Your task to perform on an android device: turn vacation reply on in the gmail app Image 0: 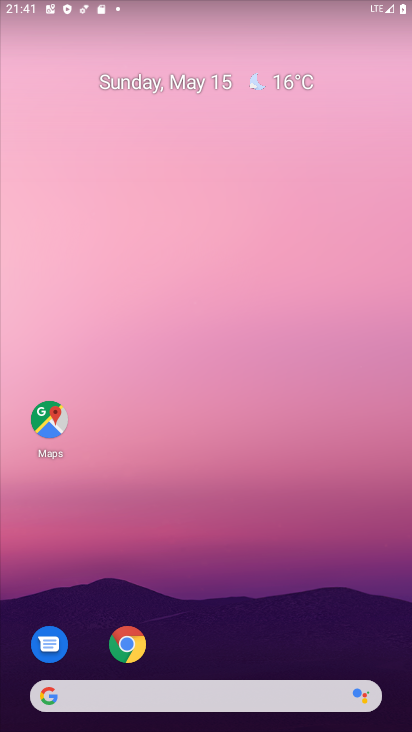
Step 0: drag from (257, 475) to (265, 187)
Your task to perform on an android device: turn vacation reply on in the gmail app Image 1: 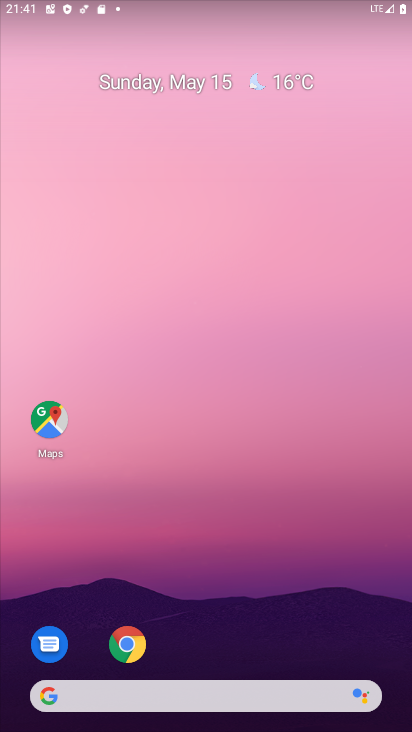
Step 1: drag from (162, 632) to (228, 240)
Your task to perform on an android device: turn vacation reply on in the gmail app Image 2: 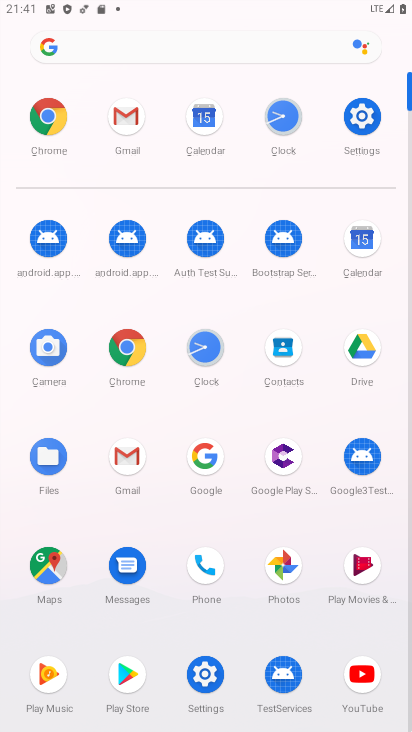
Step 2: click (119, 104)
Your task to perform on an android device: turn vacation reply on in the gmail app Image 3: 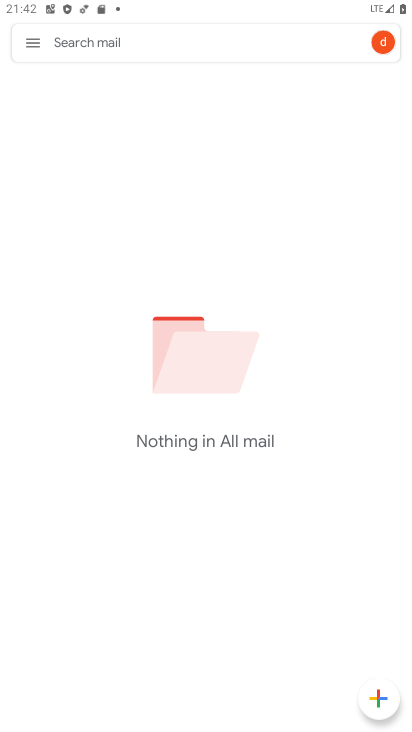
Step 3: click (27, 39)
Your task to perform on an android device: turn vacation reply on in the gmail app Image 4: 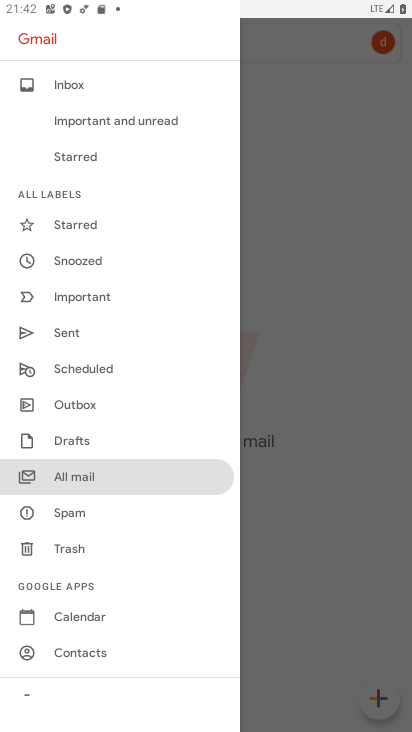
Step 4: drag from (79, 615) to (171, 103)
Your task to perform on an android device: turn vacation reply on in the gmail app Image 5: 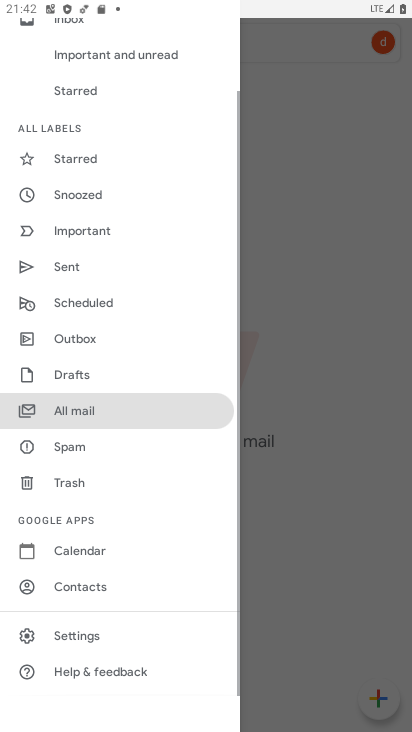
Step 5: click (82, 630)
Your task to perform on an android device: turn vacation reply on in the gmail app Image 6: 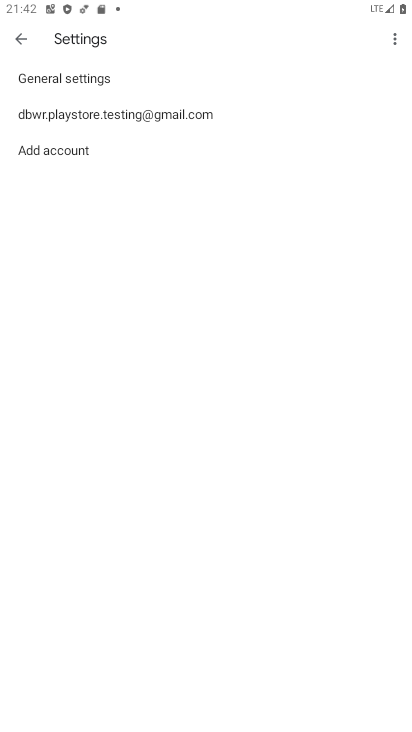
Step 6: click (132, 113)
Your task to perform on an android device: turn vacation reply on in the gmail app Image 7: 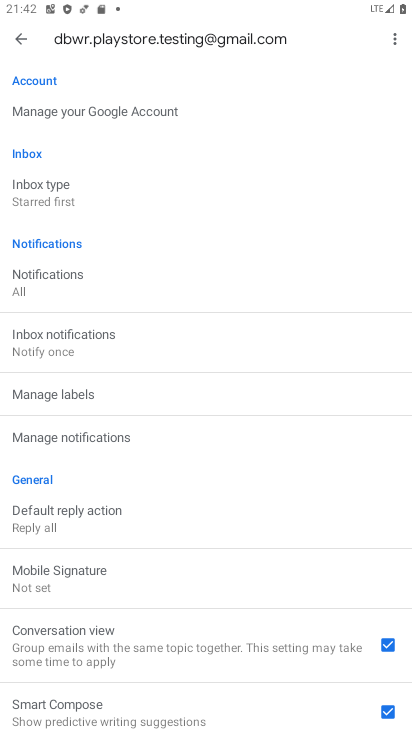
Step 7: drag from (113, 683) to (212, 182)
Your task to perform on an android device: turn vacation reply on in the gmail app Image 8: 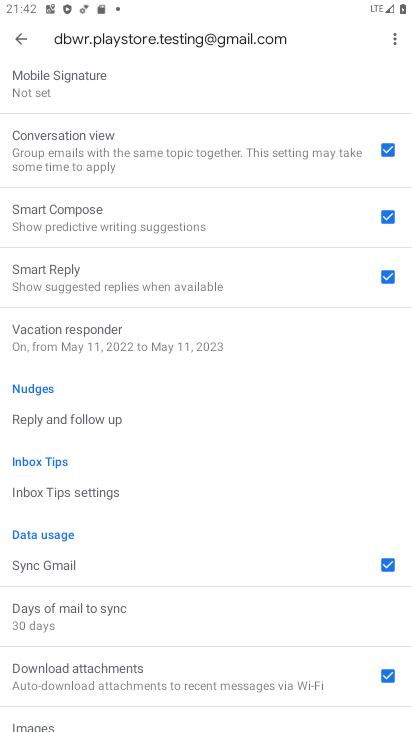
Step 8: drag from (202, 655) to (249, 325)
Your task to perform on an android device: turn vacation reply on in the gmail app Image 9: 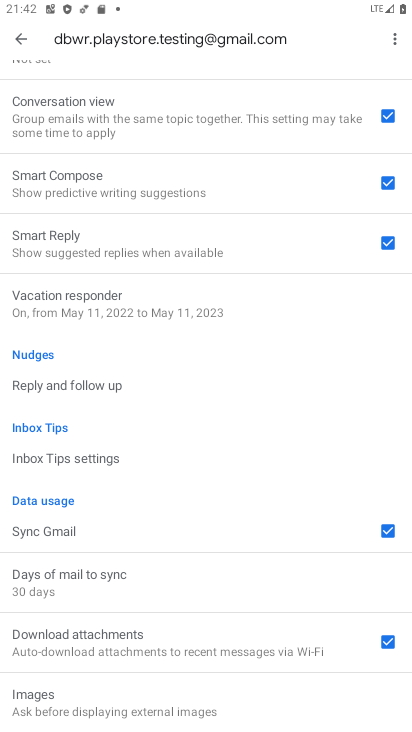
Step 9: click (178, 287)
Your task to perform on an android device: turn vacation reply on in the gmail app Image 10: 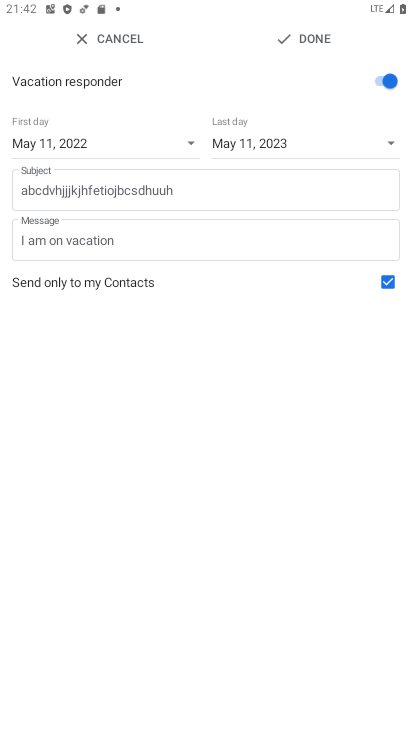
Step 10: task complete